Your task to perform on an android device: Open CNN.com Image 0: 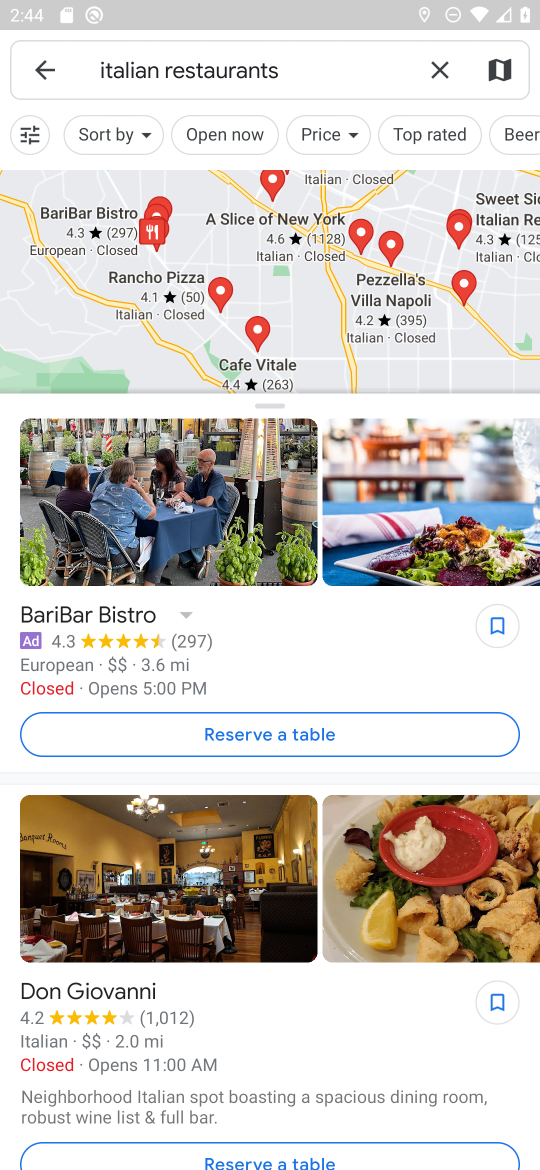
Step 0: press home button
Your task to perform on an android device: Open CNN.com Image 1: 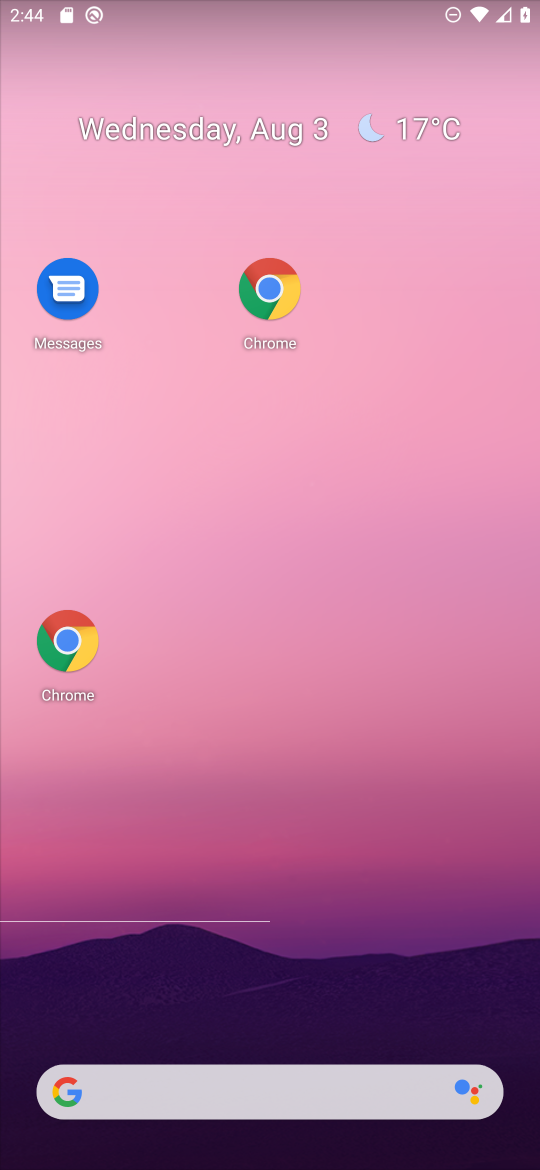
Step 1: click (69, 678)
Your task to perform on an android device: Open CNN.com Image 2: 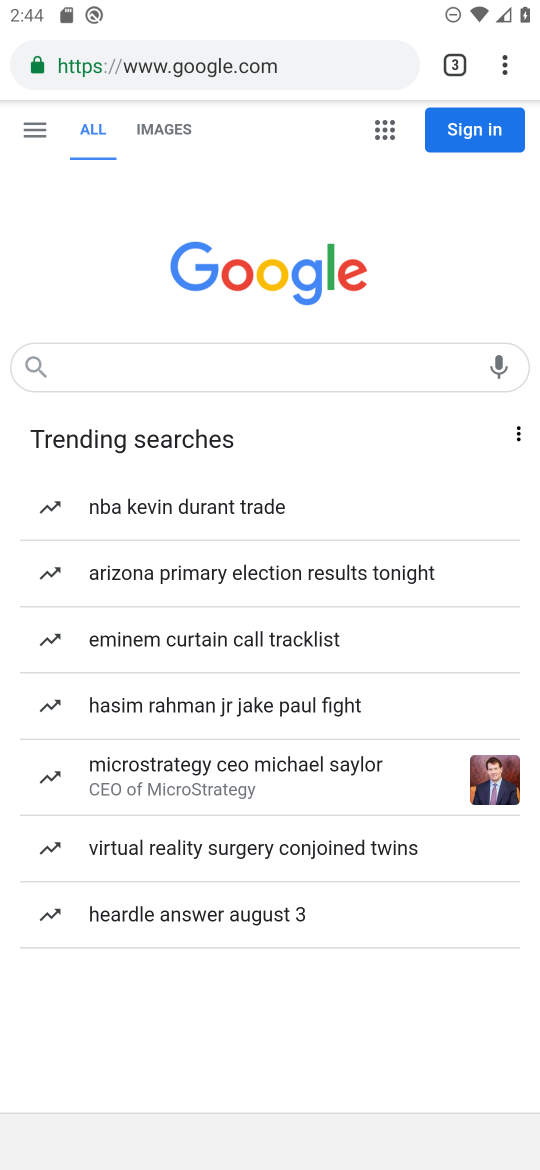
Step 2: click (315, 83)
Your task to perform on an android device: Open CNN.com Image 3: 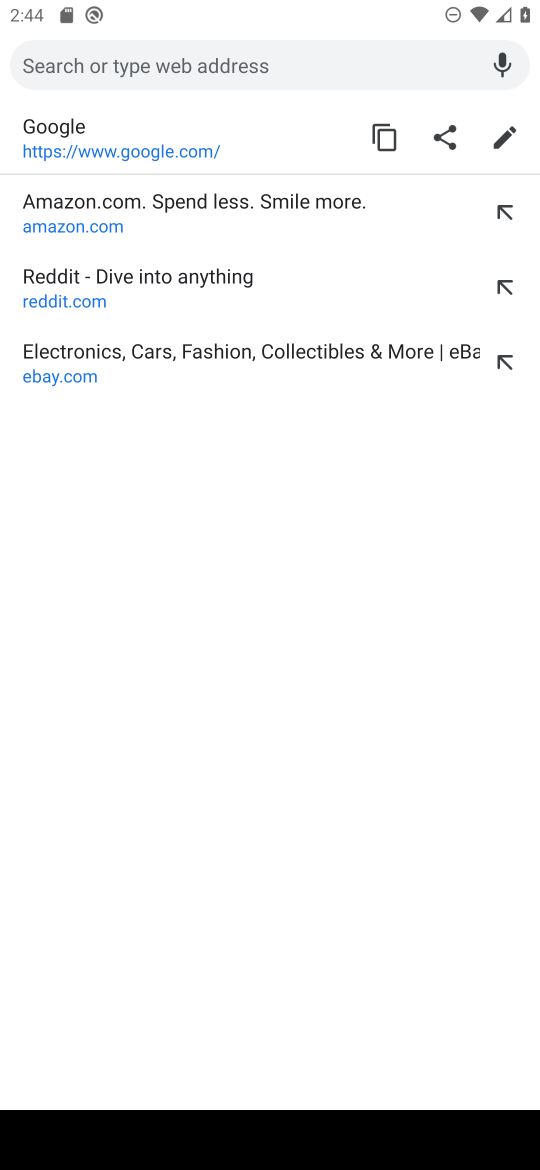
Step 3: type "cnn.com"
Your task to perform on an android device: Open CNN.com Image 4: 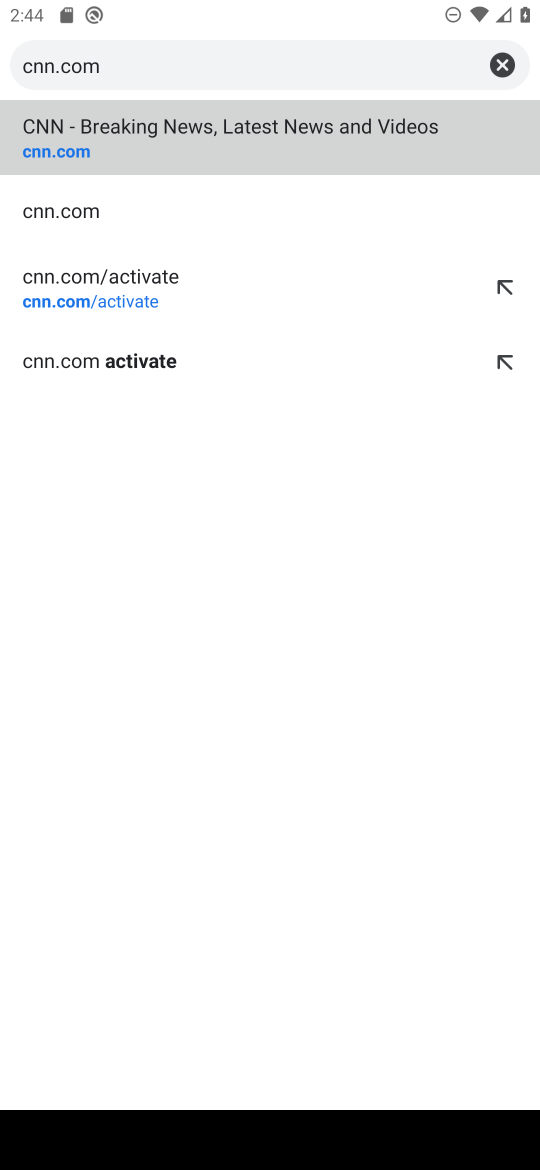
Step 4: click (297, 140)
Your task to perform on an android device: Open CNN.com Image 5: 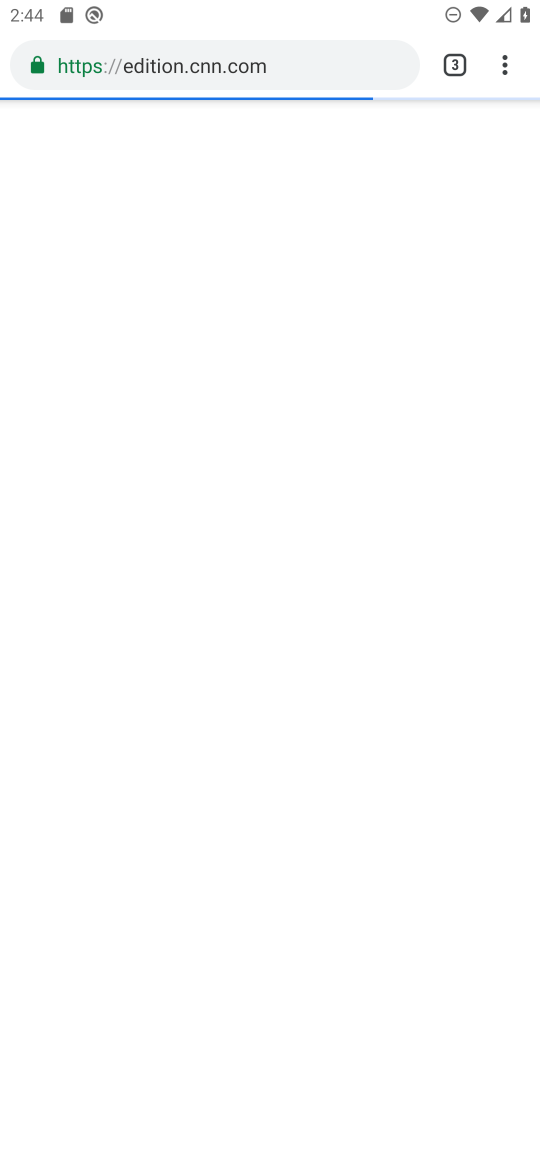
Step 5: task complete